Your task to perform on an android device: Open battery settings Image 0: 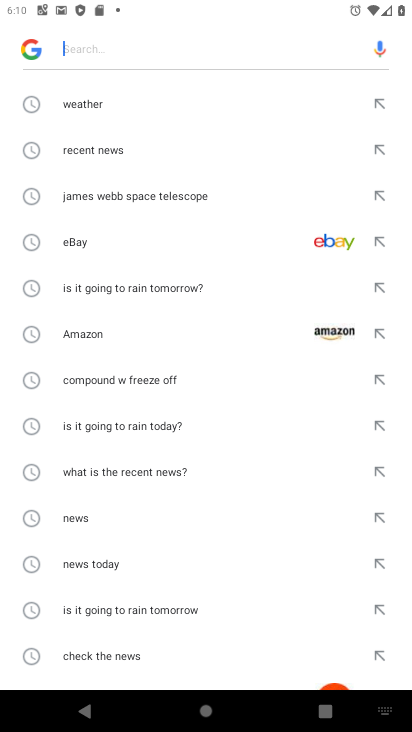
Step 0: press home button
Your task to perform on an android device: Open battery settings Image 1: 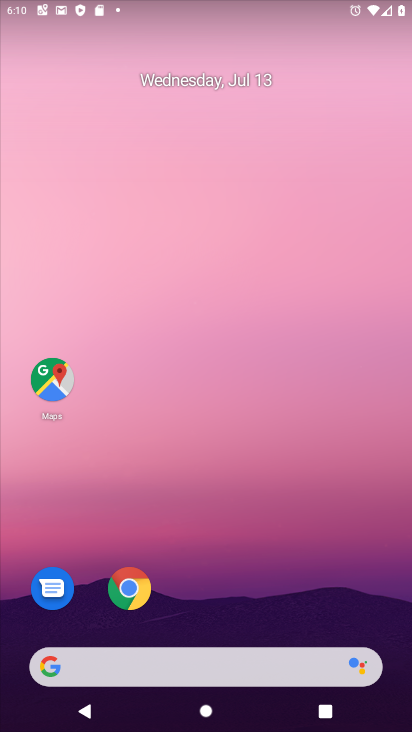
Step 1: drag from (251, 615) to (243, 169)
Your task to perform on an android device: Open battery settings Image 2: 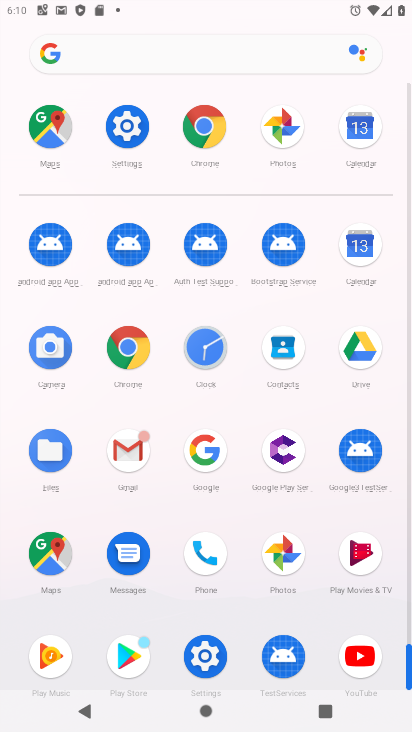
Step 2: click (207, 660)
Your task to perform on an android device: Open battery settings Image 3: 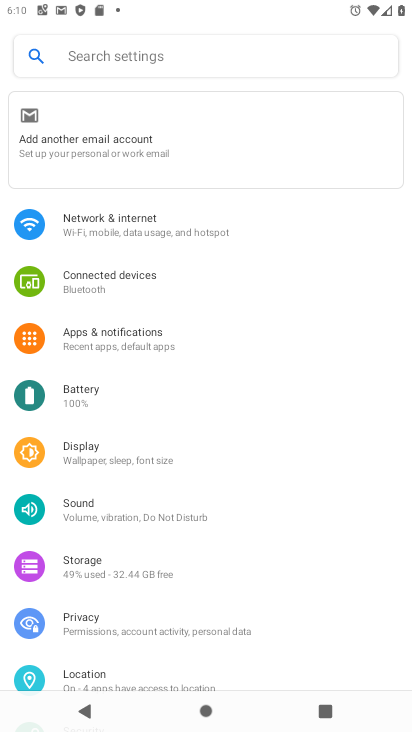
Step 3: click (86, 402)
Your task to perform on an android device: Open battery settings Image 4: 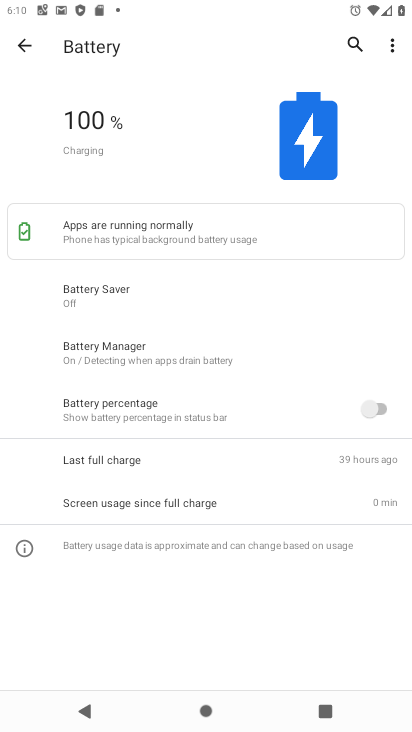
Step 4: task complete